Your task to perform on an android device: Open Android settings Image 0: 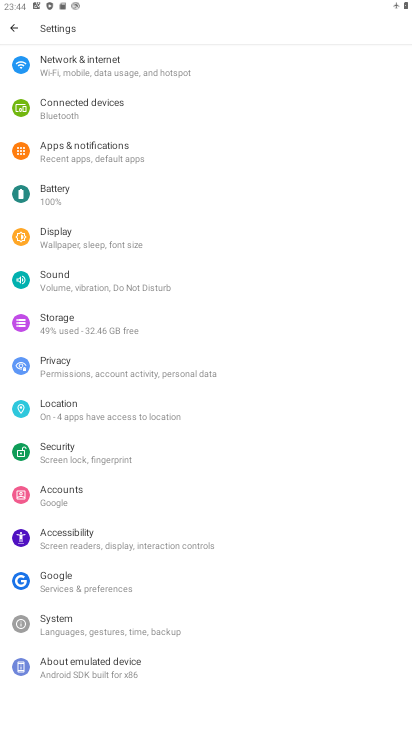
Step 0: press home button
Your task to perform on an android device: Open Android settings Image 1: 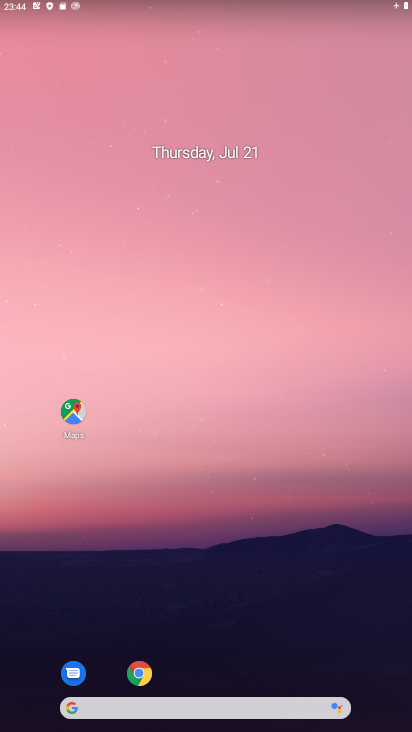
Step 1: drag from (214, 563) to (214, 126)
Your task to perform on an android device: Open Android settings Image 2: 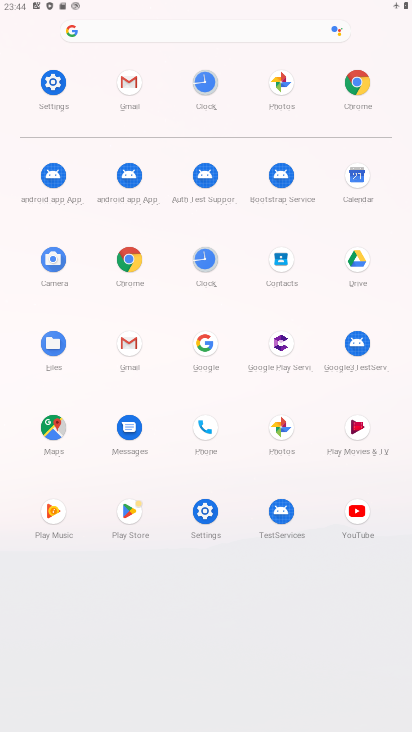
Step 2: click (66, 87)
Your task to perform on an android device: Open Android settings Image 3: 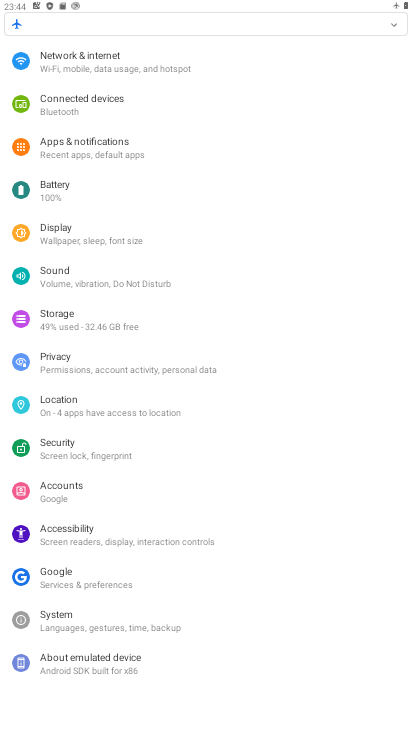
Step 3: task complete